Your task to perform on an android device: open chrome privacy settings Image 0: 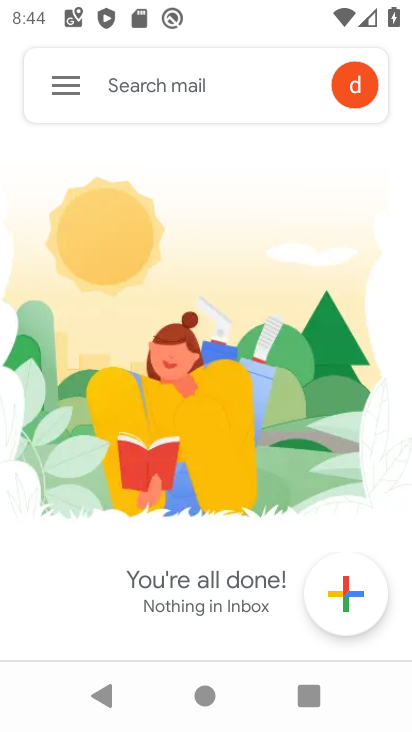
Step 0: press home button
Your task to perform on an android device: open chrome privacy settings Image 1: 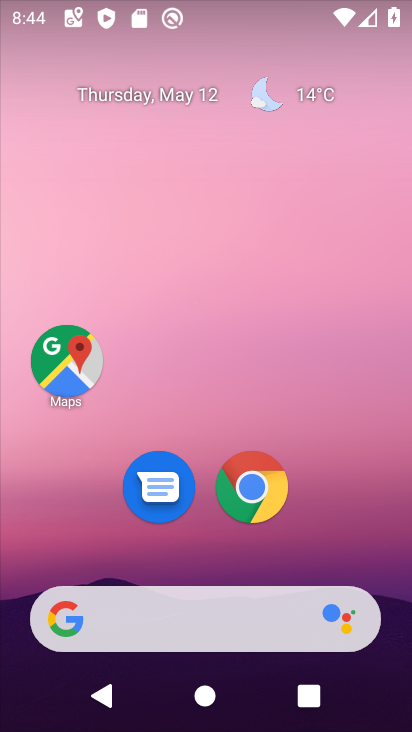
Step 1: click (253, 479)
Your task to perform on an android device: open chrome privacy settings Image 2: 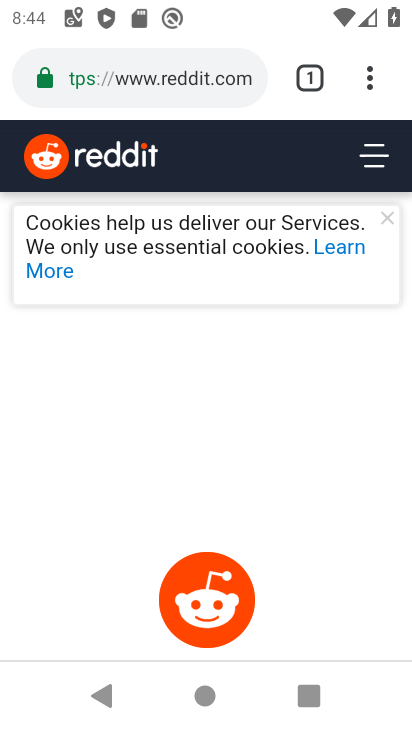
Step 2: click (367, 83)
Your task to perform on an android device: open chrome privacy settings Image 3: 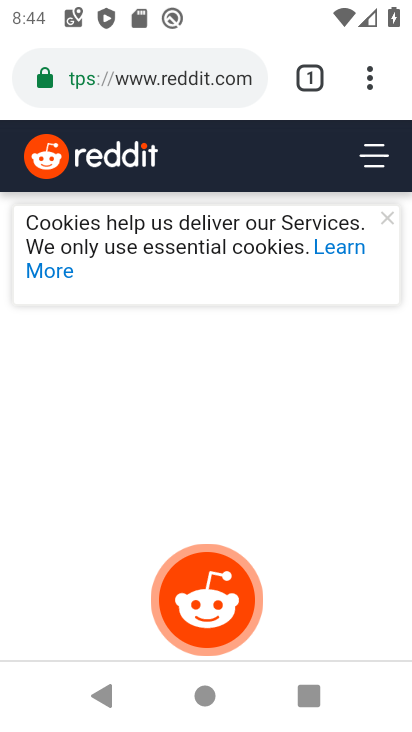
Step 3: click (363, 75)
Your task to perform on an android device: open chrome privacy settings Image 4: 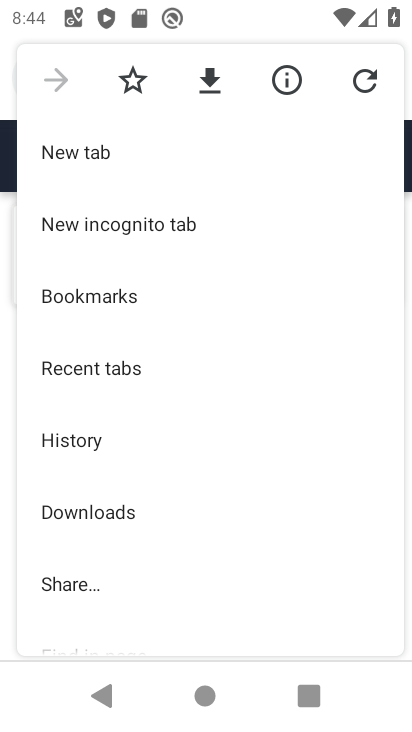
Step 4: drag from (74, 600) to (268, 113)
Your task to perform on an android device: open chrome privacy settings Image 5: 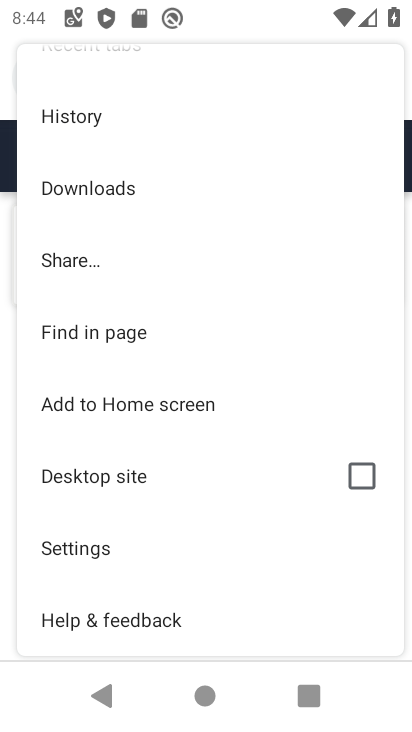
Step 5: click (105, 546)
Your task to perform on an android device: open chrome privacy settings Image 6: 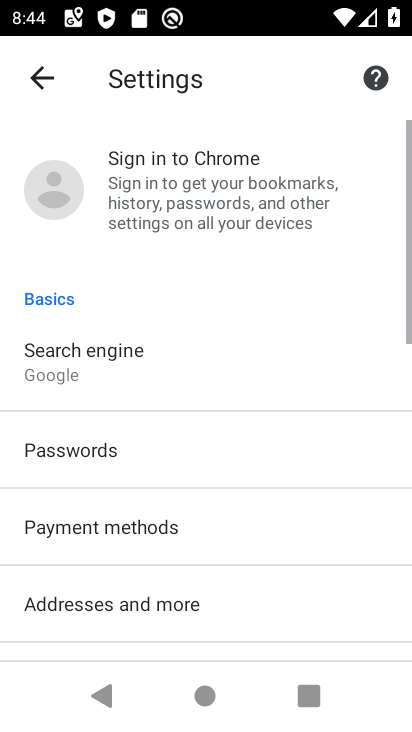
Step 6: drag from (36, 625) to (257, 134)
Your task to perform on an android device: open chrome privacy settings Image 7: 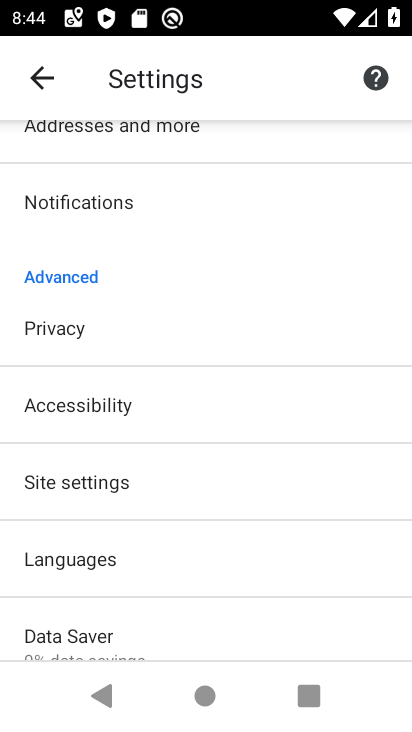
Step 7: click (139, 326)
Your task to perform on an android device: open chrome privacy settings Image 8: 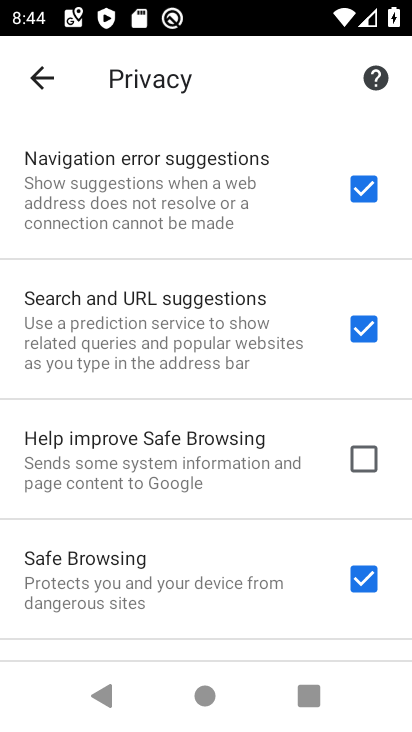
Step 8: task complete